Your task to perform on an android device: Clear the shopping cart on ebay. Add logitech g pro to the cart on ebay Image 0: 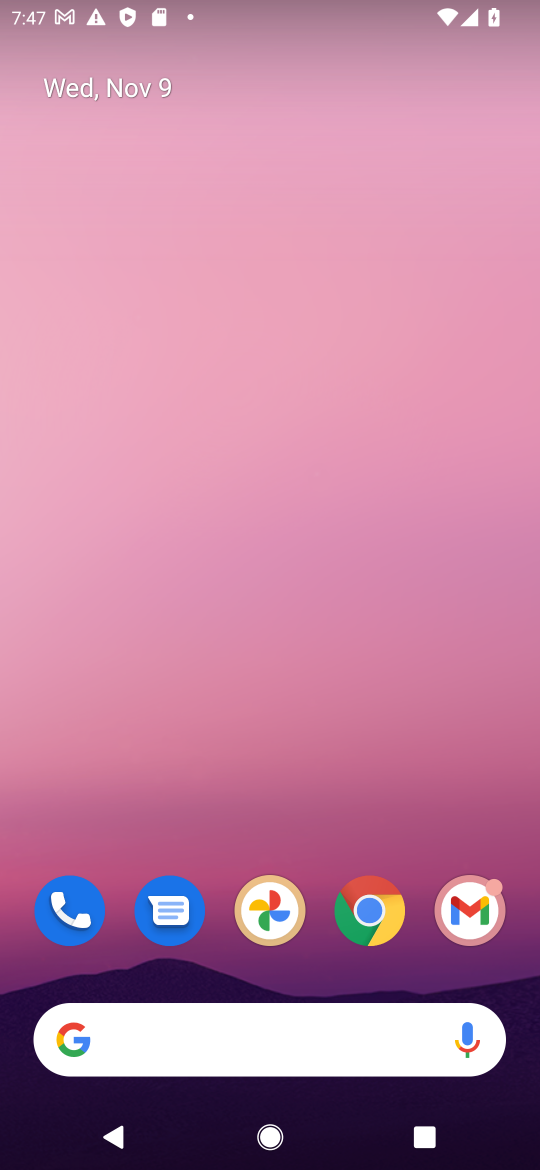
Step 0: click (372, 914)
Your task to perform on an android device: Clear the shopping cart on ebay. Add logitech g pro to the cart on ebay Image 1: 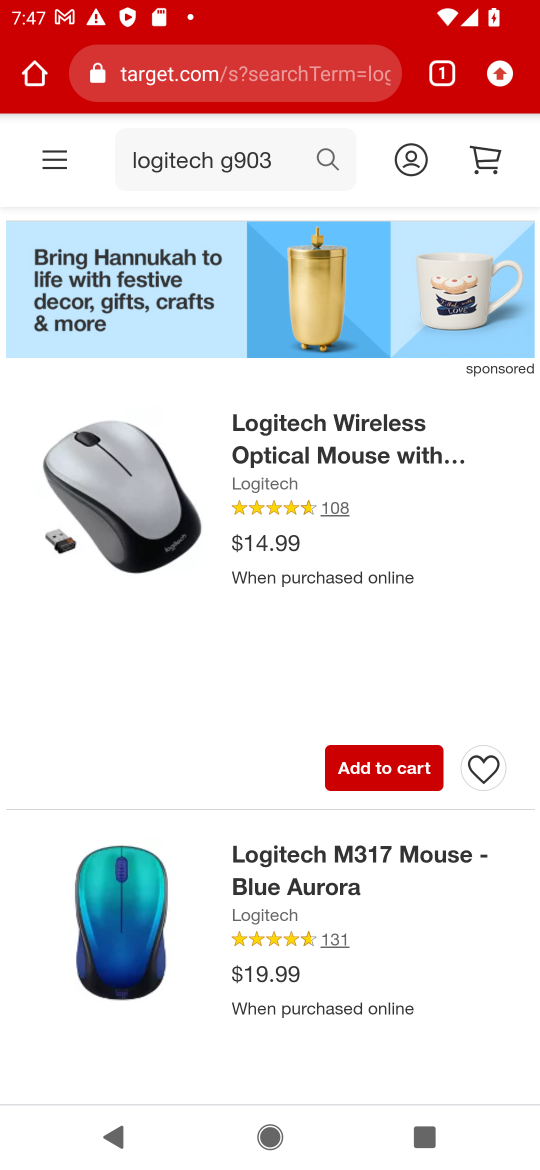
Step 1: click (192, 91)
Your task to perform on an android device: Clear the shopping cart on ebay. Add logitech g pro to the cart on ebay Image 2: 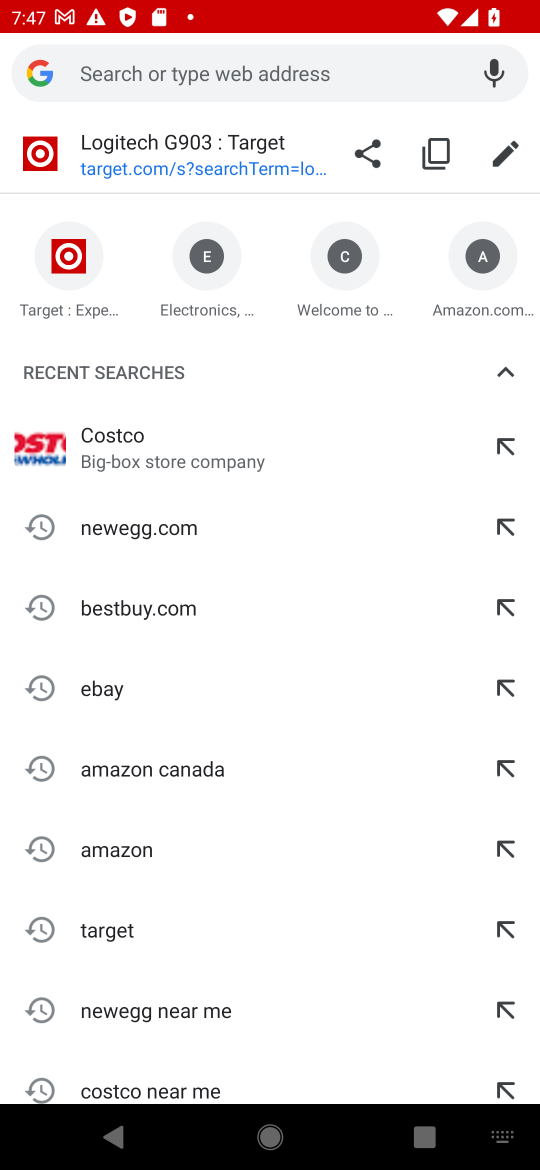
Step 2: type "ebay.com"
Your task to perform on an android device: Clear the shopping cart on ebay. Add logitech g pro to the cart on ebay Image 3: 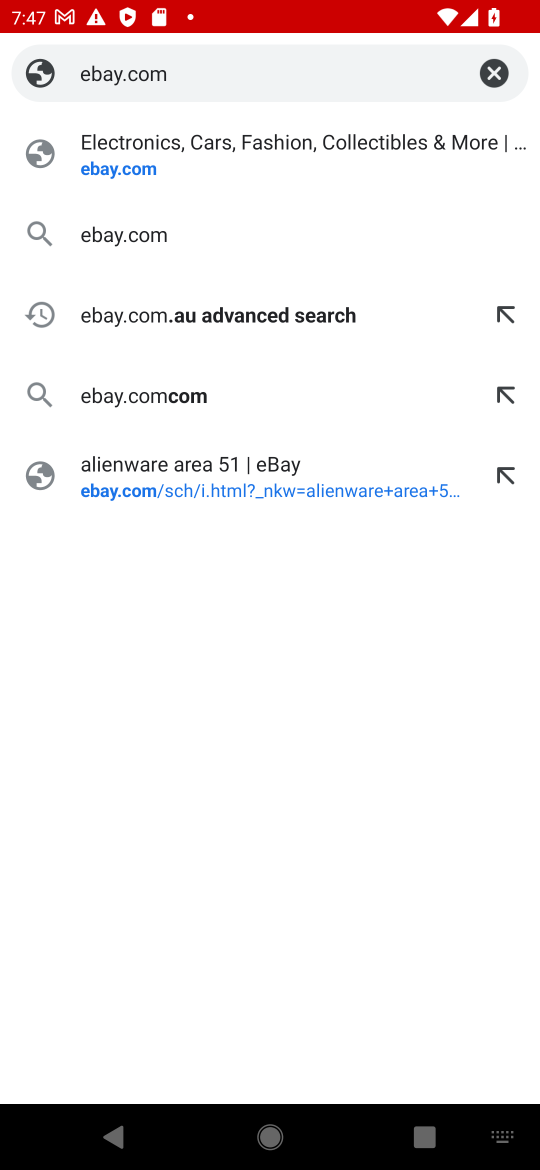
Step 3: click (121, 171)
Your task to perform on an android device: Clear the shopping cart on ebay. Add logitech g pro to the cart on ebay Image 4: 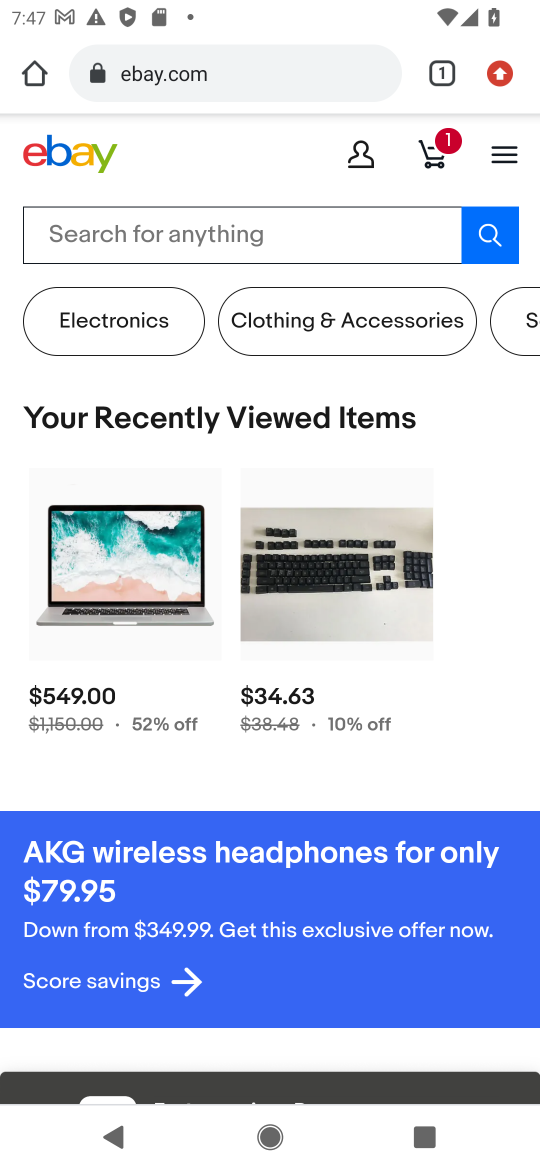
Step 4: click (447, 156)
Your task to perform on an android device: Clear the shopping cart on ebay. Add logitech g pro to the cart on ebay Image 5: 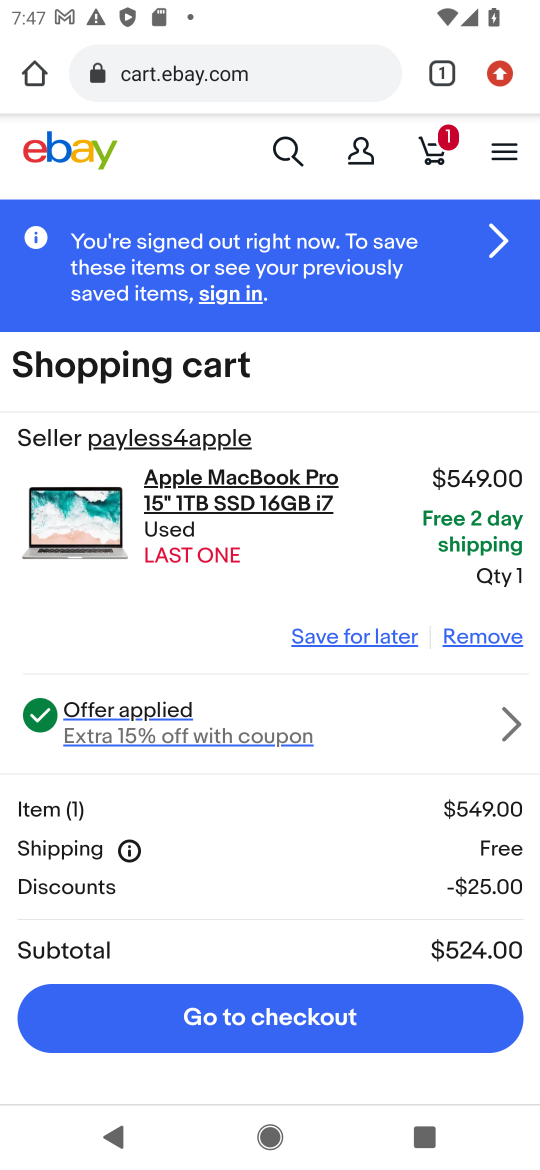
Step 5: click (458, 635)
Your task to perform on an android device: Clear the shopping cart on ebay. Add logitech g pro to the cart on ebay Image 6: 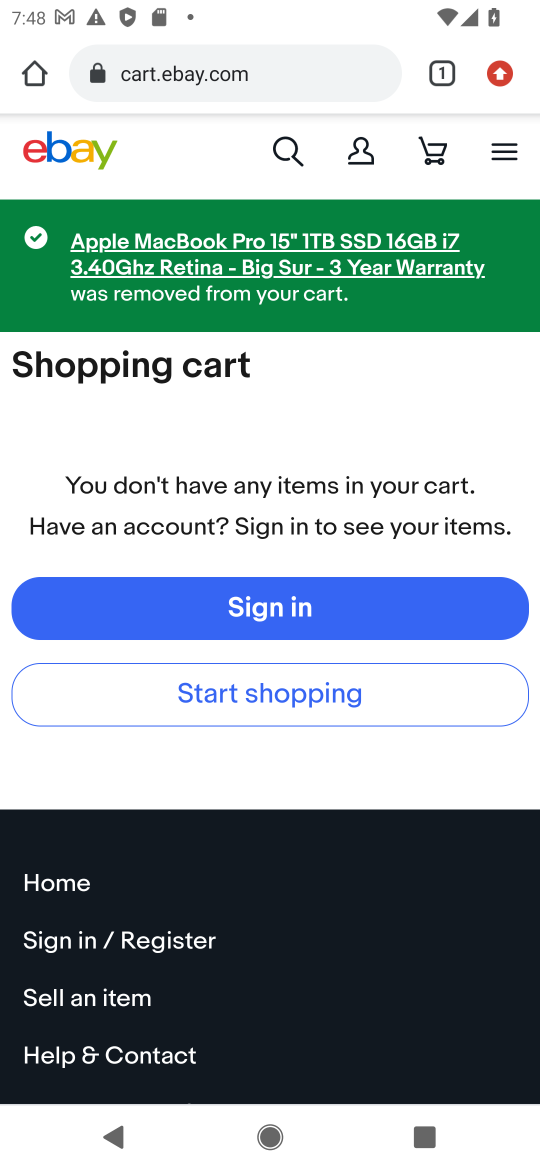
Step 6: click (285, 156)
Your task to perform on an android device: Clear the shopping cart on ebay. Add logitech g pro to the cart on ebay Image 7: 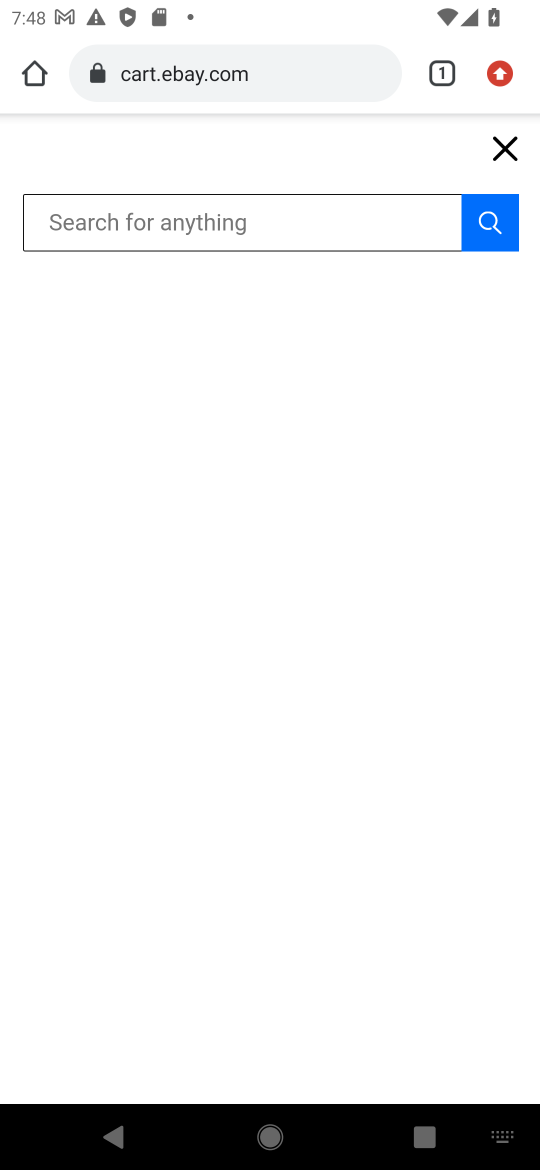
Step 7: type "logitech g pro "
Your task to perform on an android device: Clear the shopping cart on ebay. Add logitech g pro to the cart on ebay Image 8: 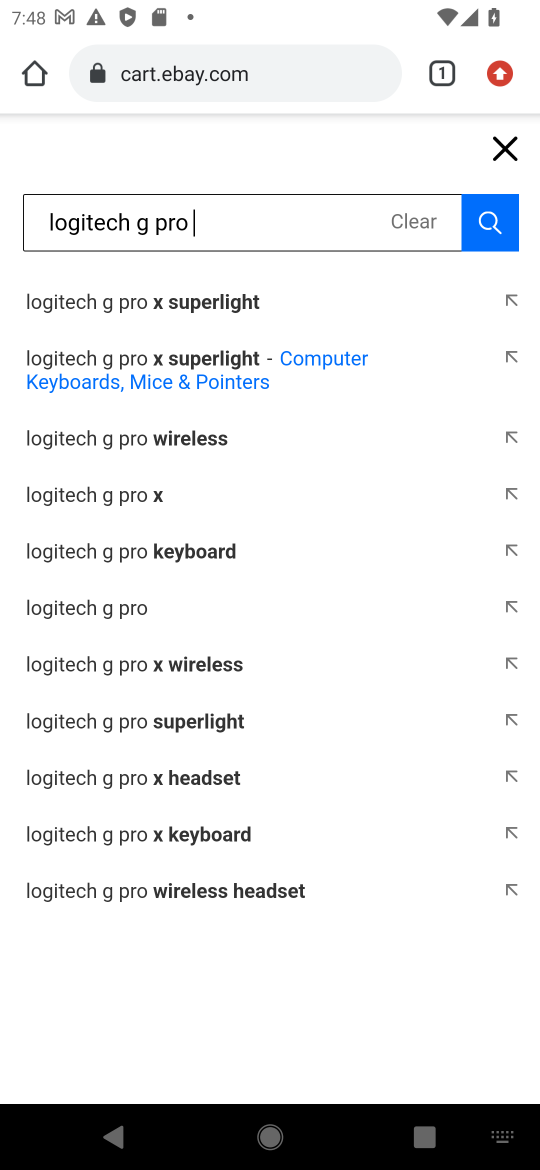
Step 8: click (133, 612)
Your task to perform on an android device: Clear the shopping cart on ebay. Add logitech g pro to the cart on ebay Image 9: 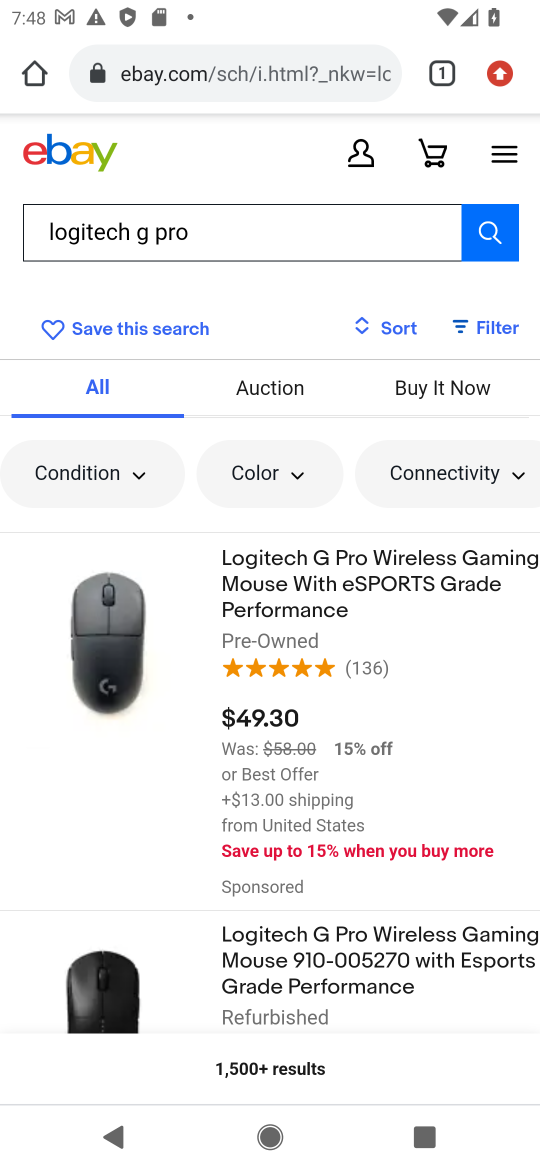
Step 9: click (122, 651)
Your task to perform on an android device: Clear the shopping cart on ebay. Add logitech g pro to the cart on ebay Image 10: 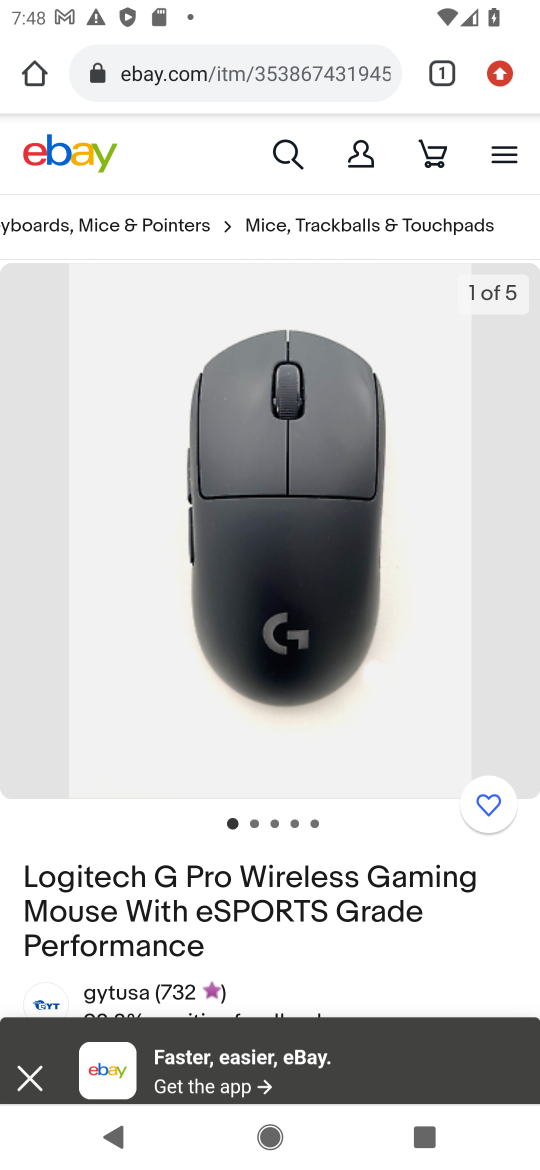
Step 10: drag from (295, 803) to (283, 387)
Your task to perform on an android device: Clear the shopping cart on ebay. Add logitech g pro to the cart on ebay Image 11: 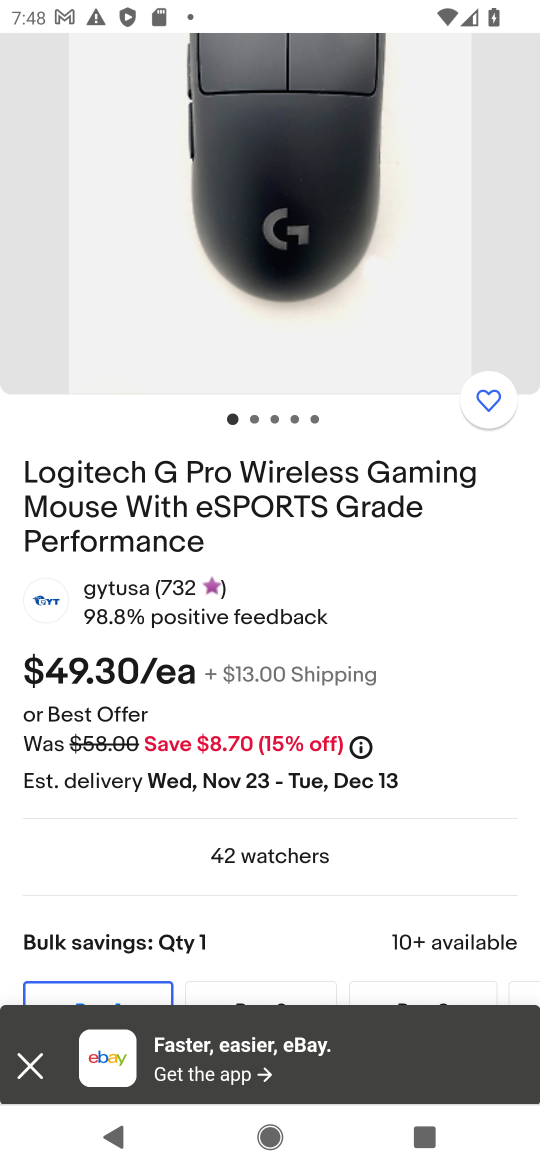
Step 11: drag from (273, 734) to (232, 404)
Your task to perform on an android device: Clear the shopping cart on ebay. Add logitech g pro to the cart on ebay Image 12: 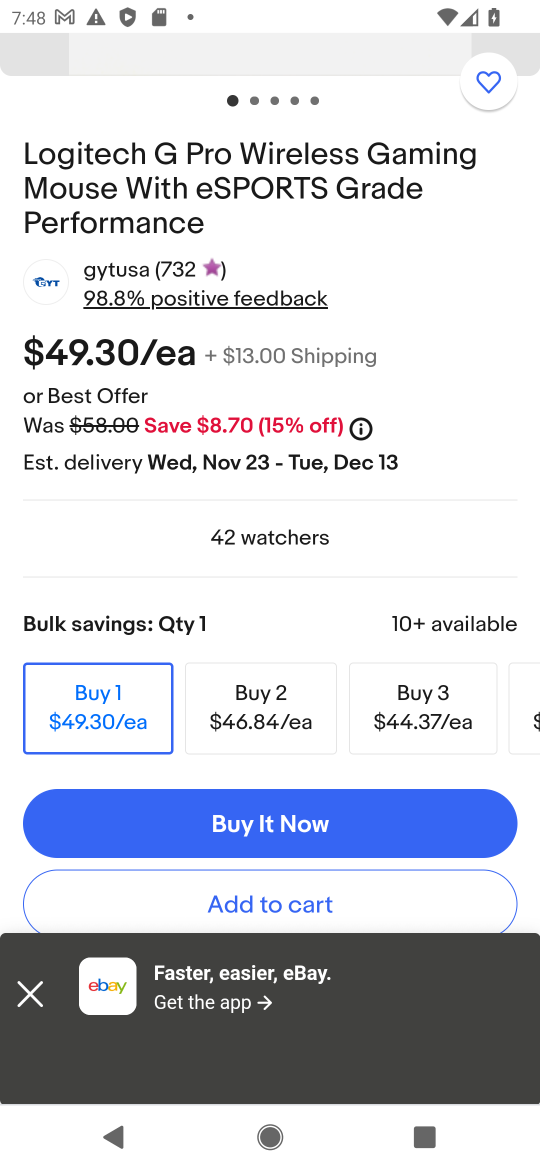
Step 12: click (264, 891)
Your task to perform on an android device: Clear the shopping cart on ebay. Add logitech g pro to the cart on ebay Image 13: 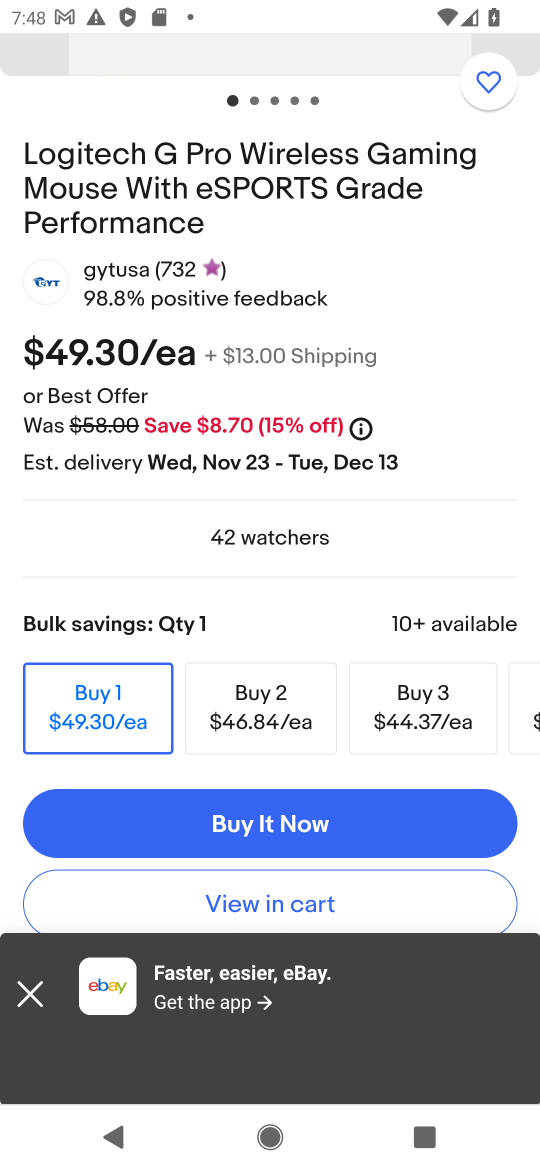
Step 13: task complete